Your task to perform on an android device: toggle translation in the chrome app Image 0: 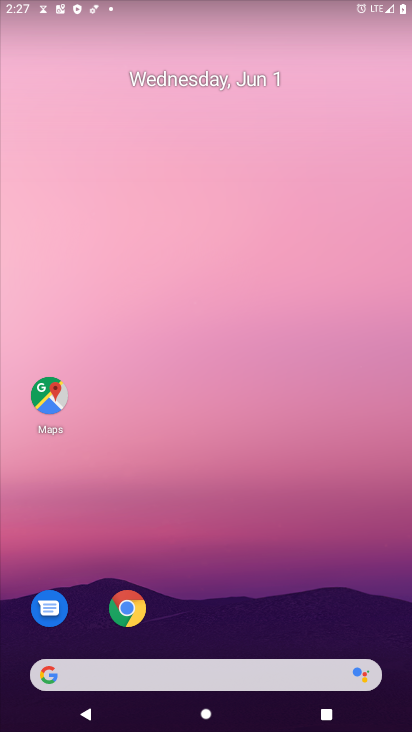
Step 0: click (131, 605)
Your task to perform on an android device: toggle translation in the chrome app Image 1: 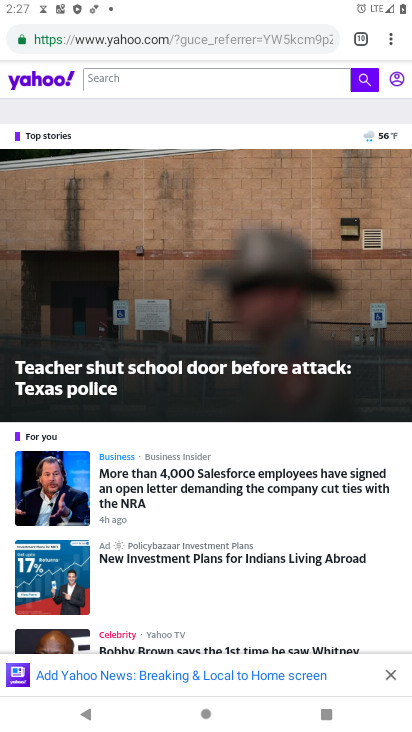
Step 1: click (394, 35)
Your task to perform on an android device: toggle translation in the chrome app Image 2: 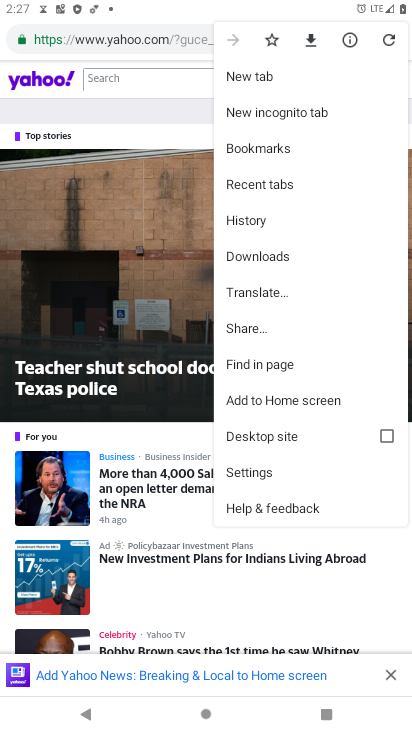
Step 2: click (287, 278)
Your task to perform on an android device: toggle translation in the chrome app Image 3: 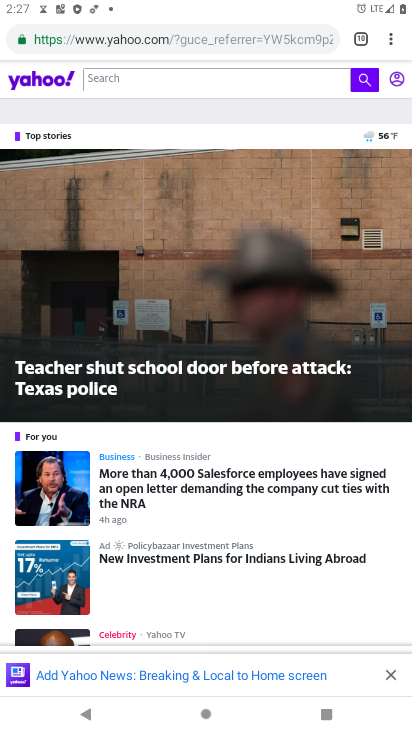
Step 3: click (395, 33)
Your task to perform on an android device: toggle translation in the chrome app Image 4: 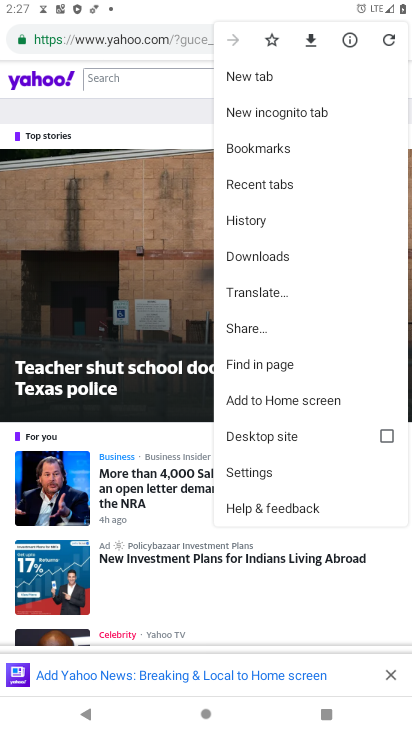
Step 4: click (268, 284)
Your task to perform on an android device: toggle translation in the chrome app Image 5: 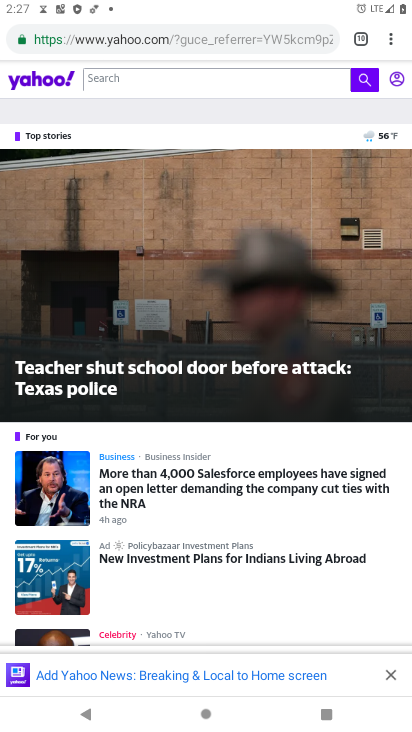
Step 5: drag from (259, 589) to (228, 281)
Your task to perform on an android device: toggle translation in the chrome app Image 6: 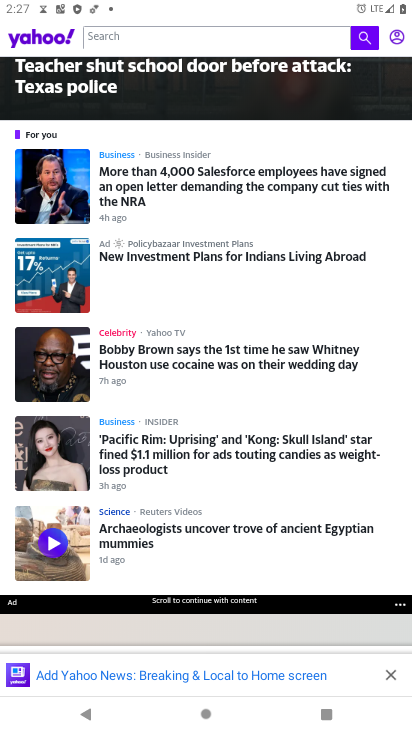
Step 6: click (402, 672)
Your task to perform on an android device: toggle translation in the chrome app Image 7: 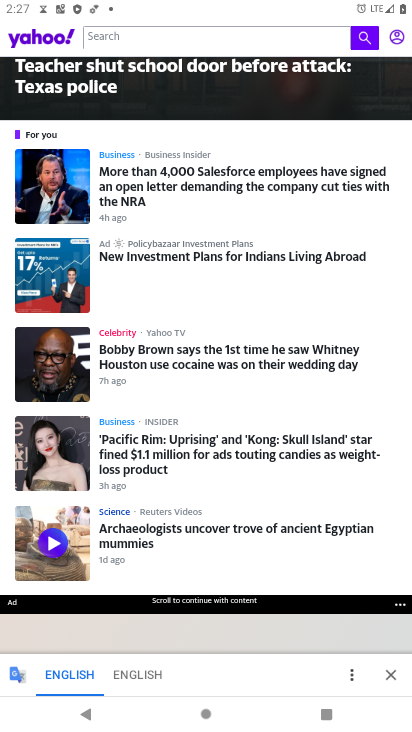
Step 7: click (146, 672)
Your task to perform on an android device: toggle translation in the chrome app Image 8: 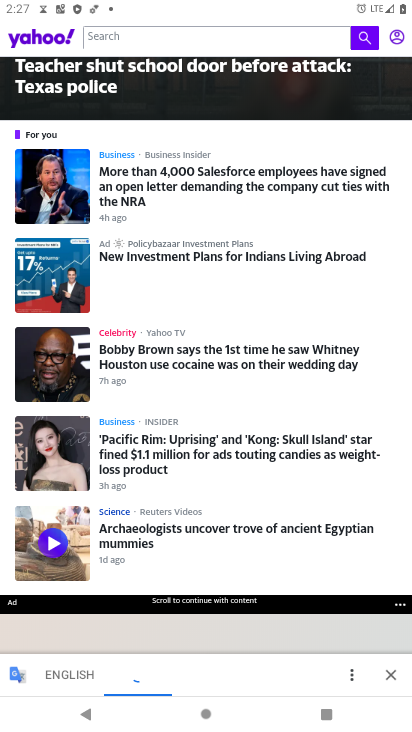
Step 8: click (354, 664)
Your task to perform on an android device: toggle translation in the chrome app Image 9: 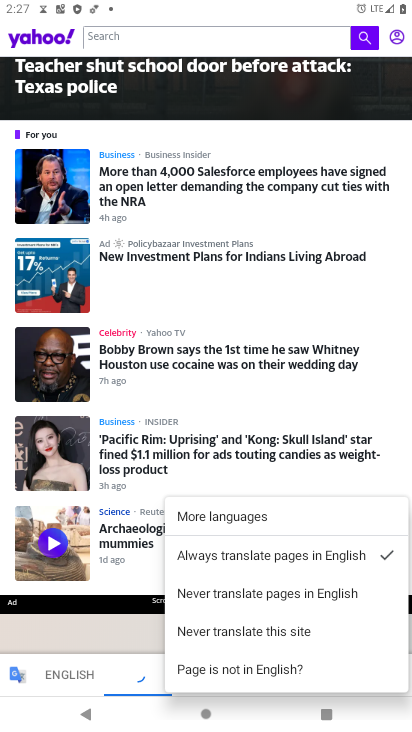
Step 9: click (277, 622)
Your task to perform on an android device: toggle translation in the chrome app Image 10: 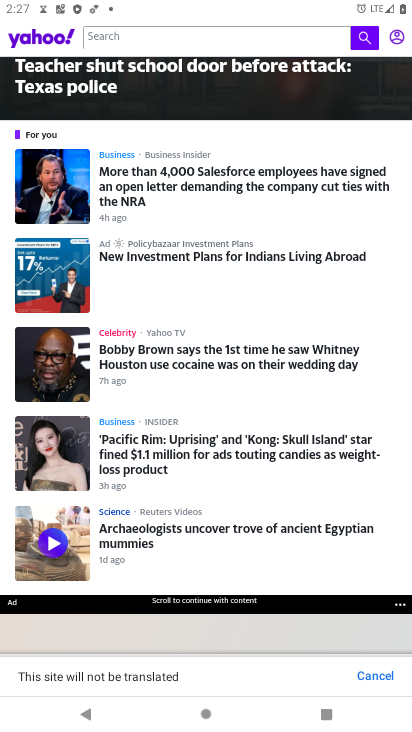
Step 10: task complete